Your task to perform on an android device: toggle notification dots Image 0: 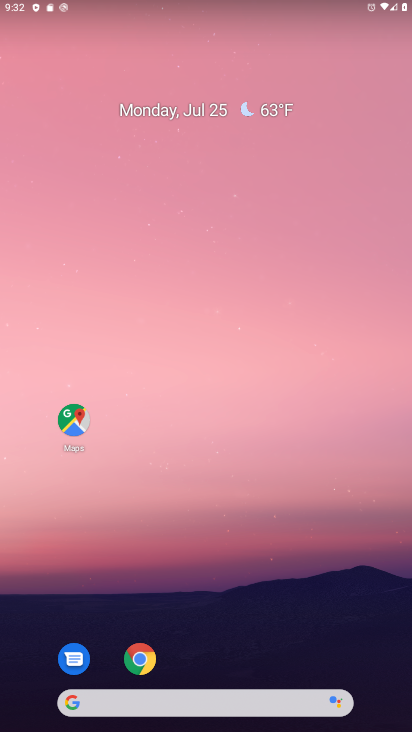
Step 0: drag from (193, 718) to (196, 233)
Your task to perform on an android device: toggle notification dots Image 1: 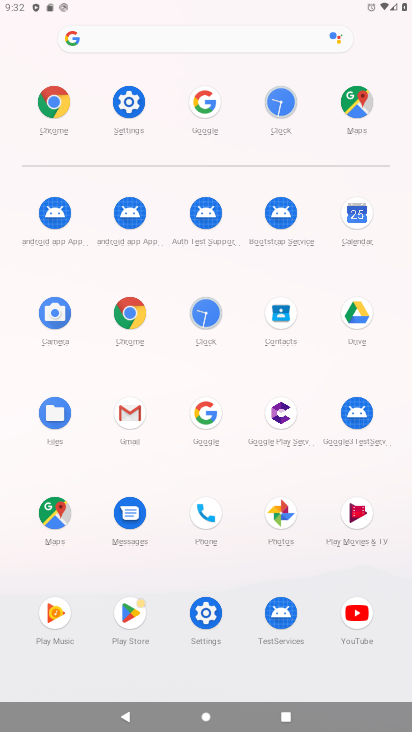
Step 1: click (133, 102)
Your task to perform on an android device: toggle notification dots Image 2: 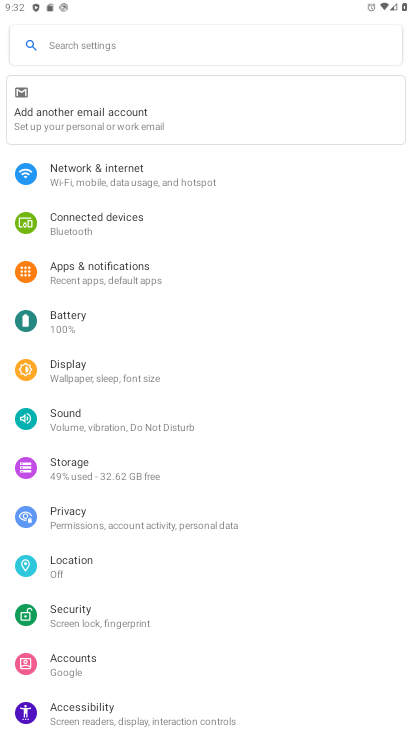
Step 2: click (84, 276)
Your task to perform on an android device: toggle notification dots Image 3: 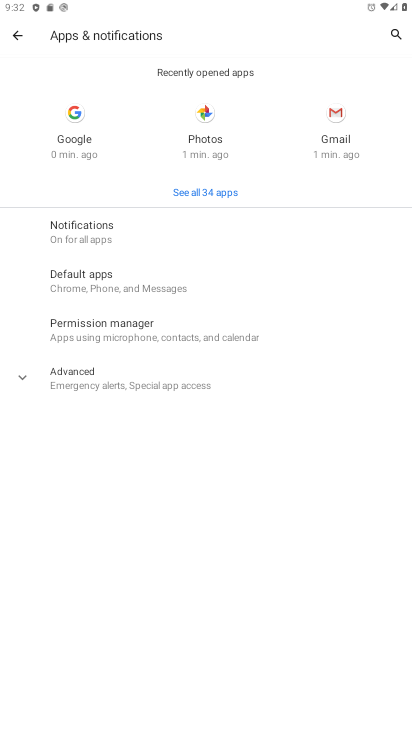
Step 3: click (78, 231)
Your task to perform on an android device: toggle notification dots Image 4: 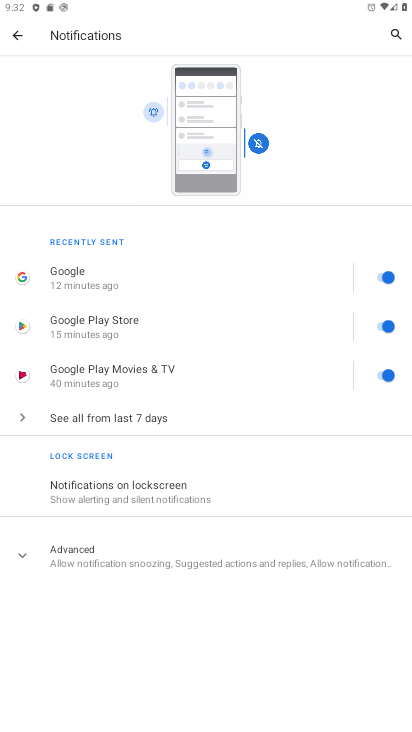
Step 4: click (89, 557)
Your task to perform on an android device: toggle notification dots Image 5: 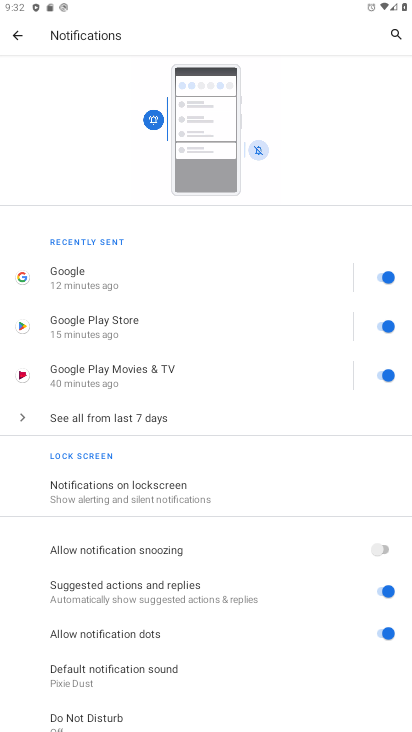
Step 5: click (381, 632)
Your task to perform on an android device: toggle notification dots Image 6: 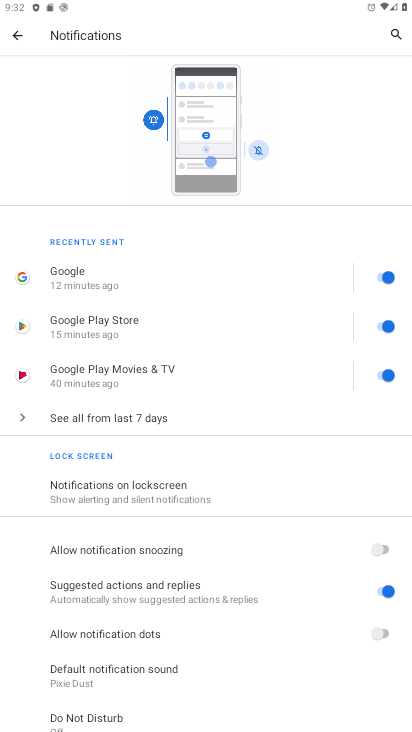
Step 6: task complete